Your task to perform on an android device: change notifications settings Image 0: 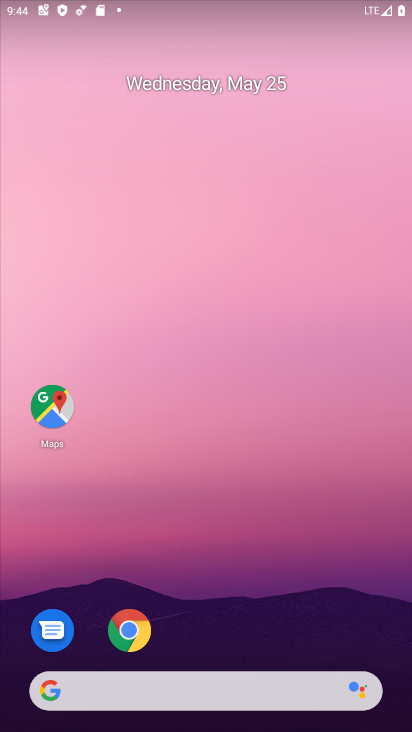
Step 0: drag from (192, 580) to (256, 108)
Your task to perform on an android device: change notifications settings Image 1: 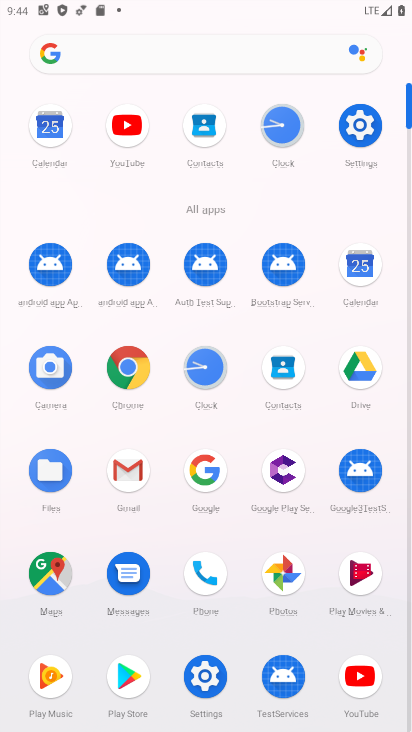
Step 1: click (360, 125)
Your task to perform on an android device: change notifications settings Image 2: 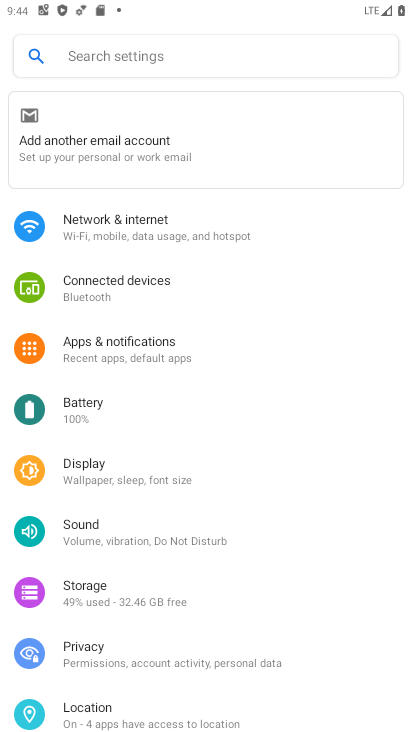
Step 2: click (135, 353)
Your task to perform on an android device: change notifications settings Image 3: 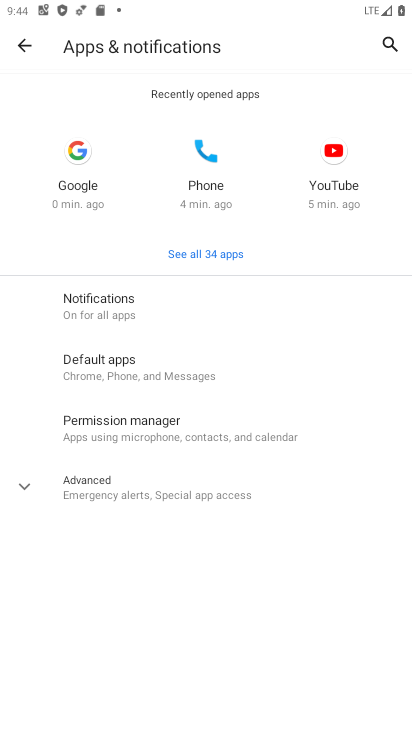
Step 3: click (122, 300)
Your task to perform on an android device: change notifications settings Image 4: 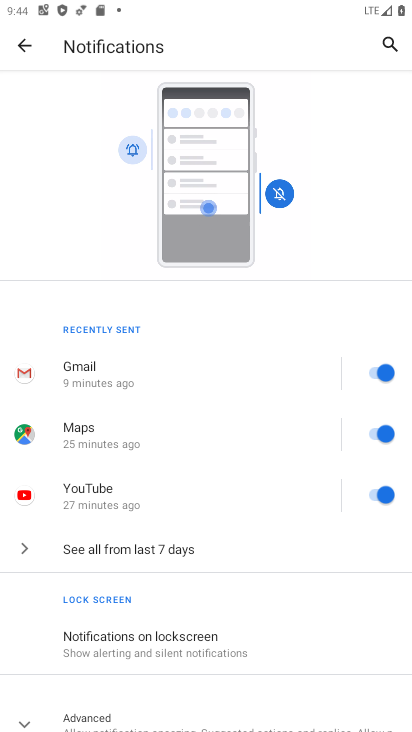
Step 4: drag from (131, 692) to (135, 403)
Your task to perform on an android device: change notifications settings Image 5: 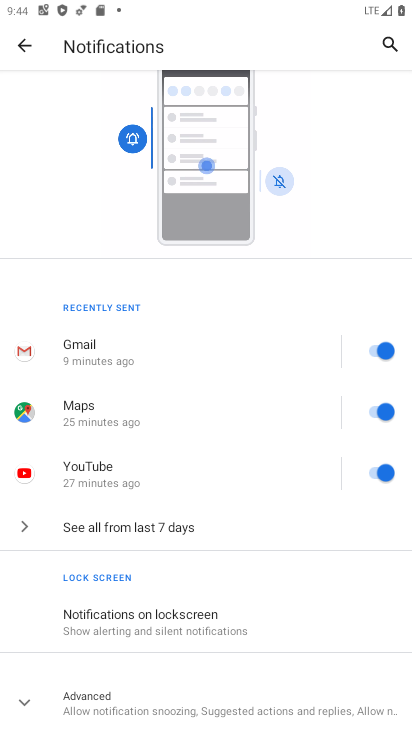
Step 5: click (123, 697)
Your task to perform on an android device: change notifications settings Image 6: 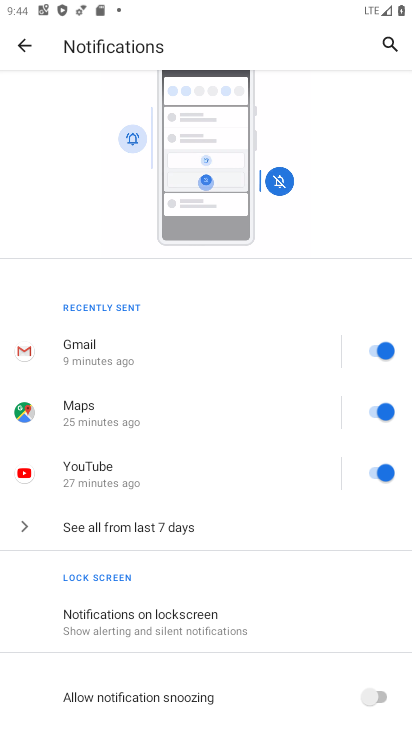
Step 6: drag from (200, 665) to (227, 325)
Your task to perform on an android device: change notifications settings Image 7: 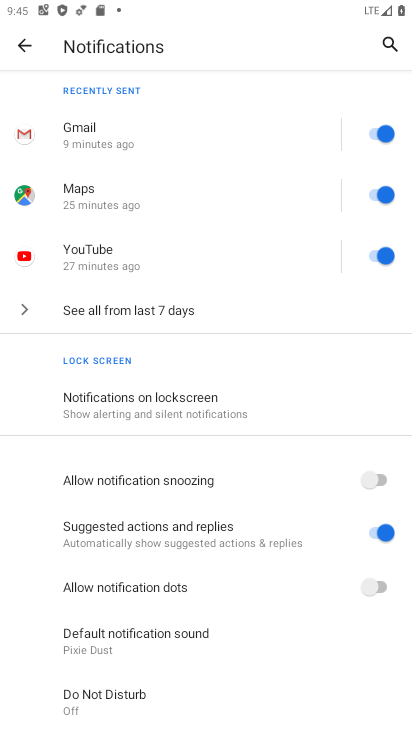
Step 7: click (378, 476)
Your task to perform on an android device: change notifications settings Image 8: 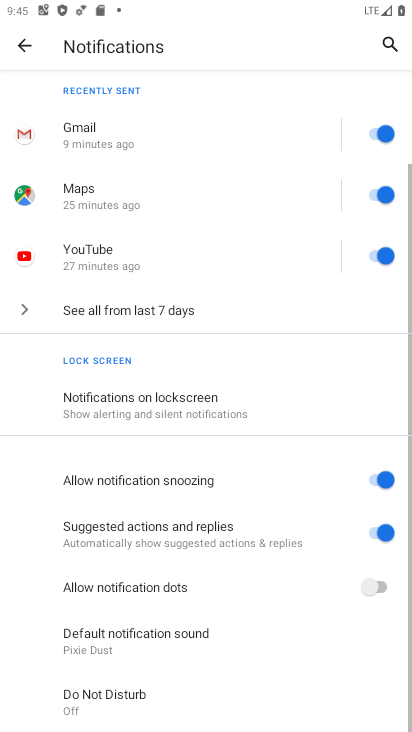
Step 8: task complete